Your task to perform on an android device: check battery use Image 0: 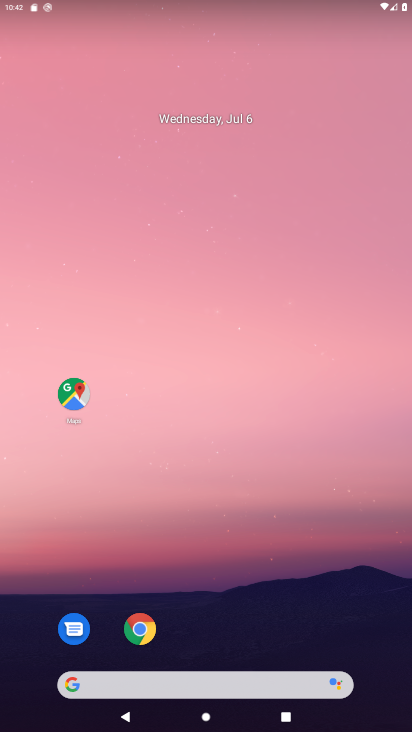
Step 0: drag from (238, 630) to (240, 112)
Your task to perform on an android device: check battery use Image 1: 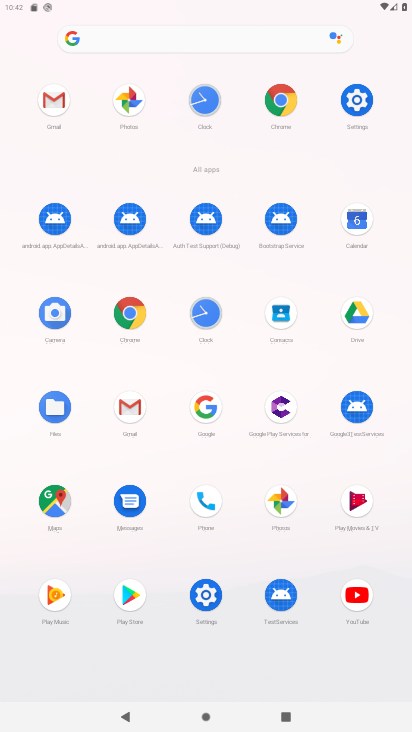
Step 1: click (353, 97)
Your task to perform on an android device: check battery use Image 2: 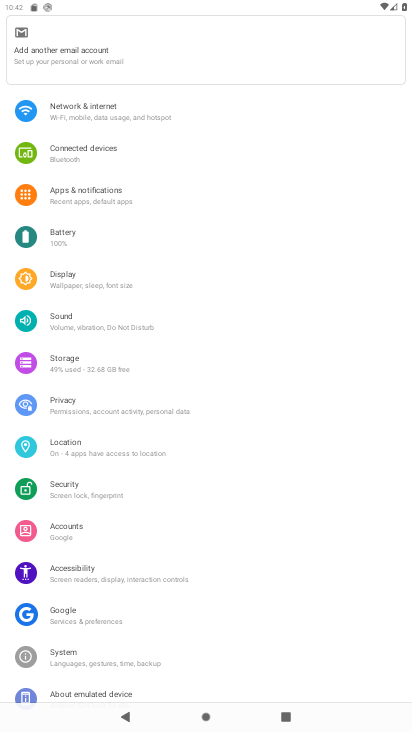
Step 2: click (80, 239)
Your task to perform on an android device: check battery use Image 3: 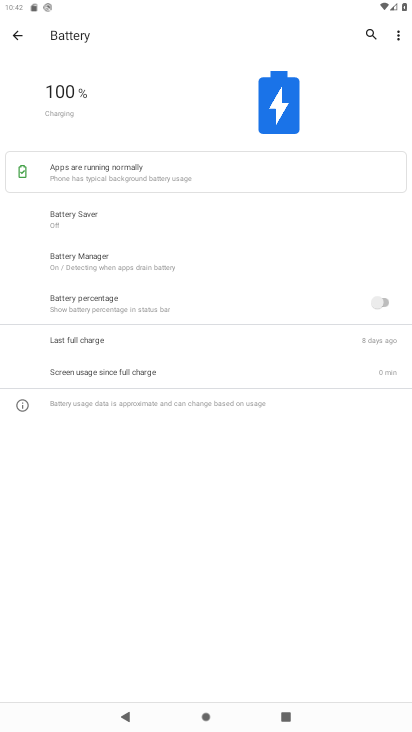
Step 3: click (400, 34)
Your task to perform on an android device: check battery use Image 4: 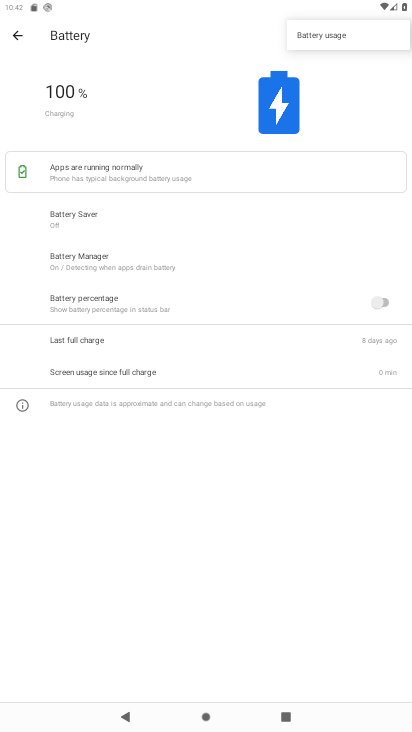
Step 4: click (328, 29)
Your task to perform on an android device: check battery use Image 5: 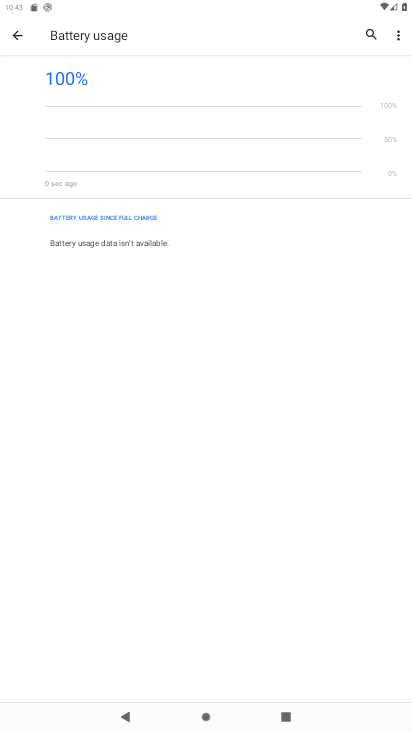
Step 5: task complete